Your task to perform on an android device: Open calendar and show me the second week of next month Image 0: 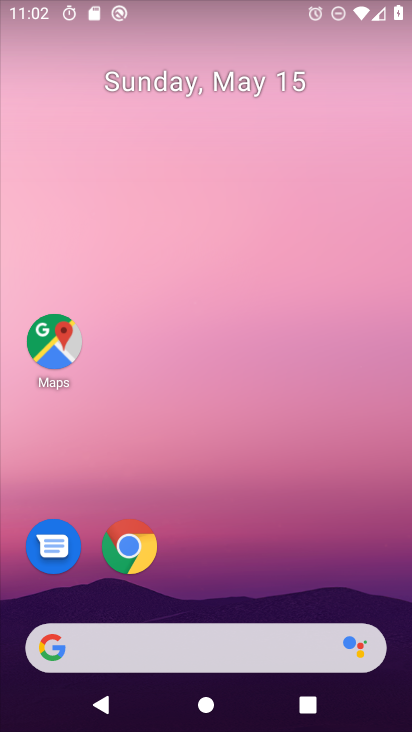
Step 0: drag from (324, 580) to (244, 137)
Your task to perform on an android device: Open calendar and show me the second week of next month Image 1: 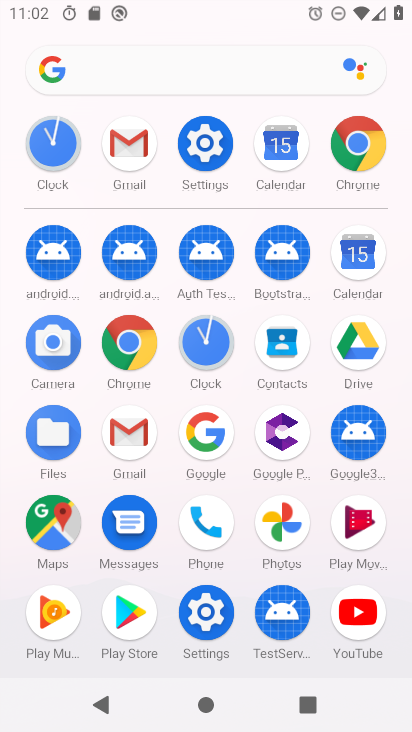
Step 1: click (273, 154)
Your task to perform on an android device: Open calendar and show me the second week of next month Image 2: 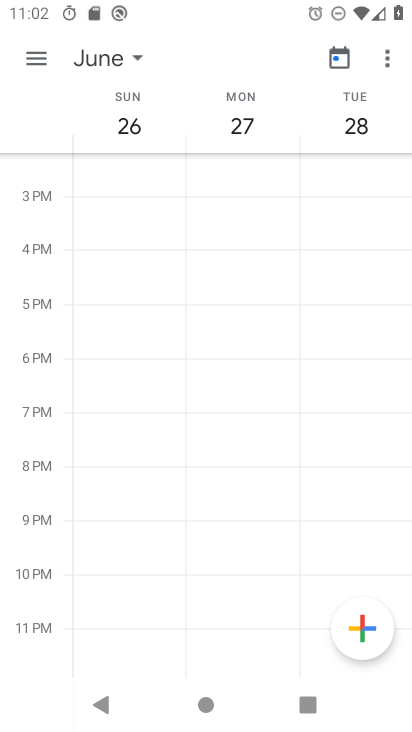
Step 2: click (86, 56)
Your task to perform on an android device: Open calendar and show me the second week of next month Image 3: 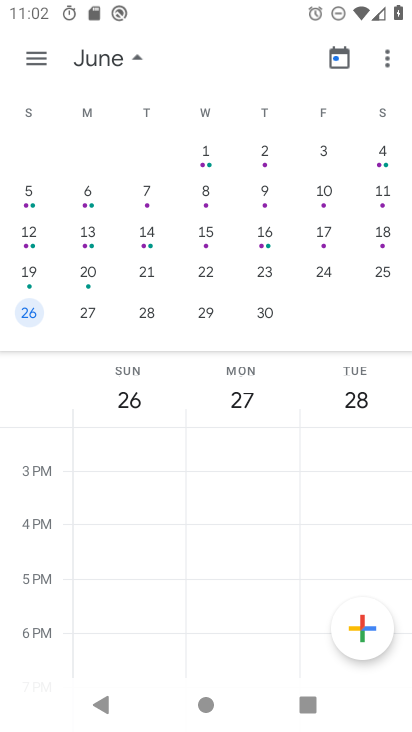
Step 3: click (27, 228)
Your task to perform on an android device: Open calendar and show me the second week of next month Image 4: 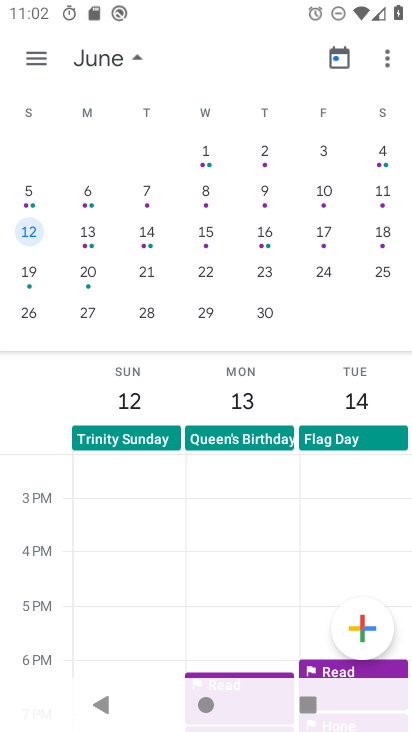
Step 4: task complete